Your task to perform on an android device: delete a single message in the gmail app Image 0: 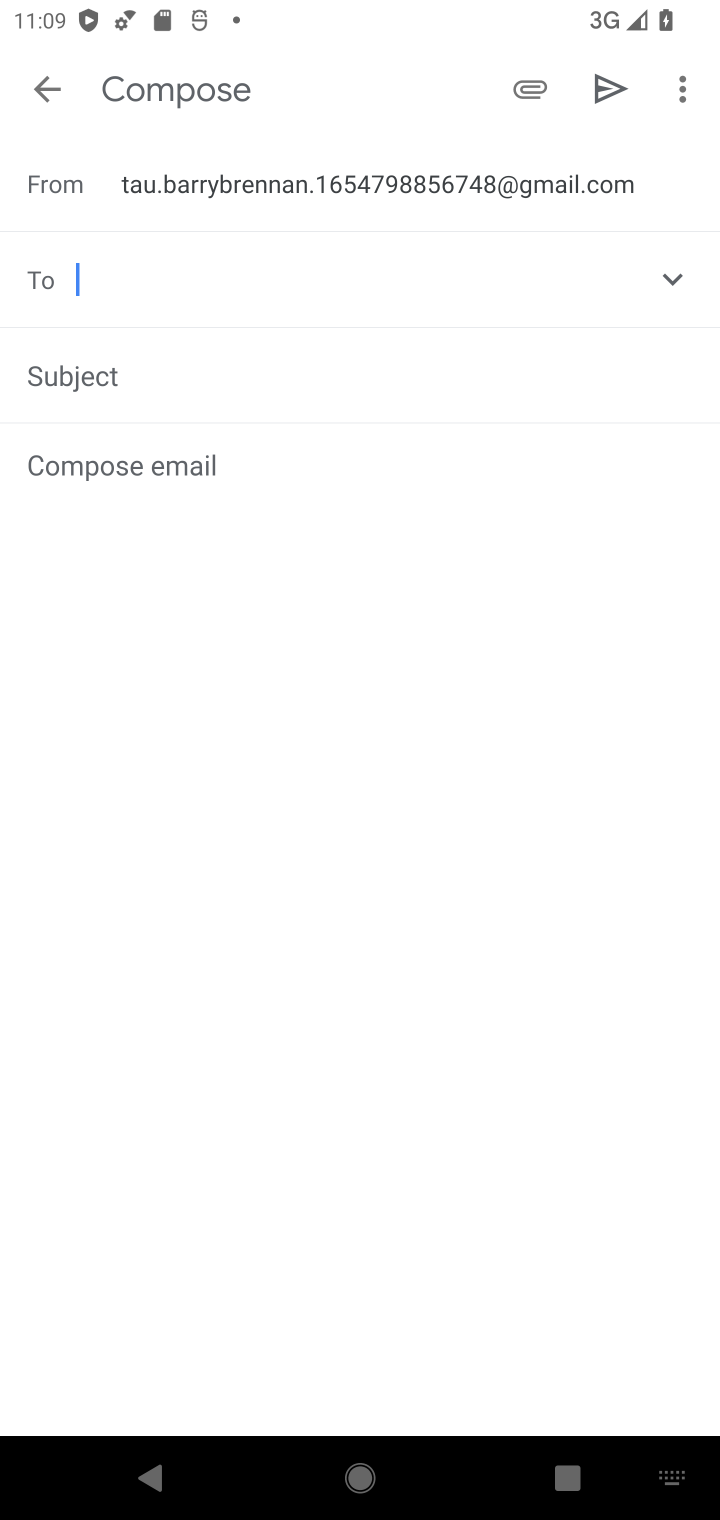
Step 0: press home button
Your task to perform on an android device: delete a single message in the gmail app Image 1: 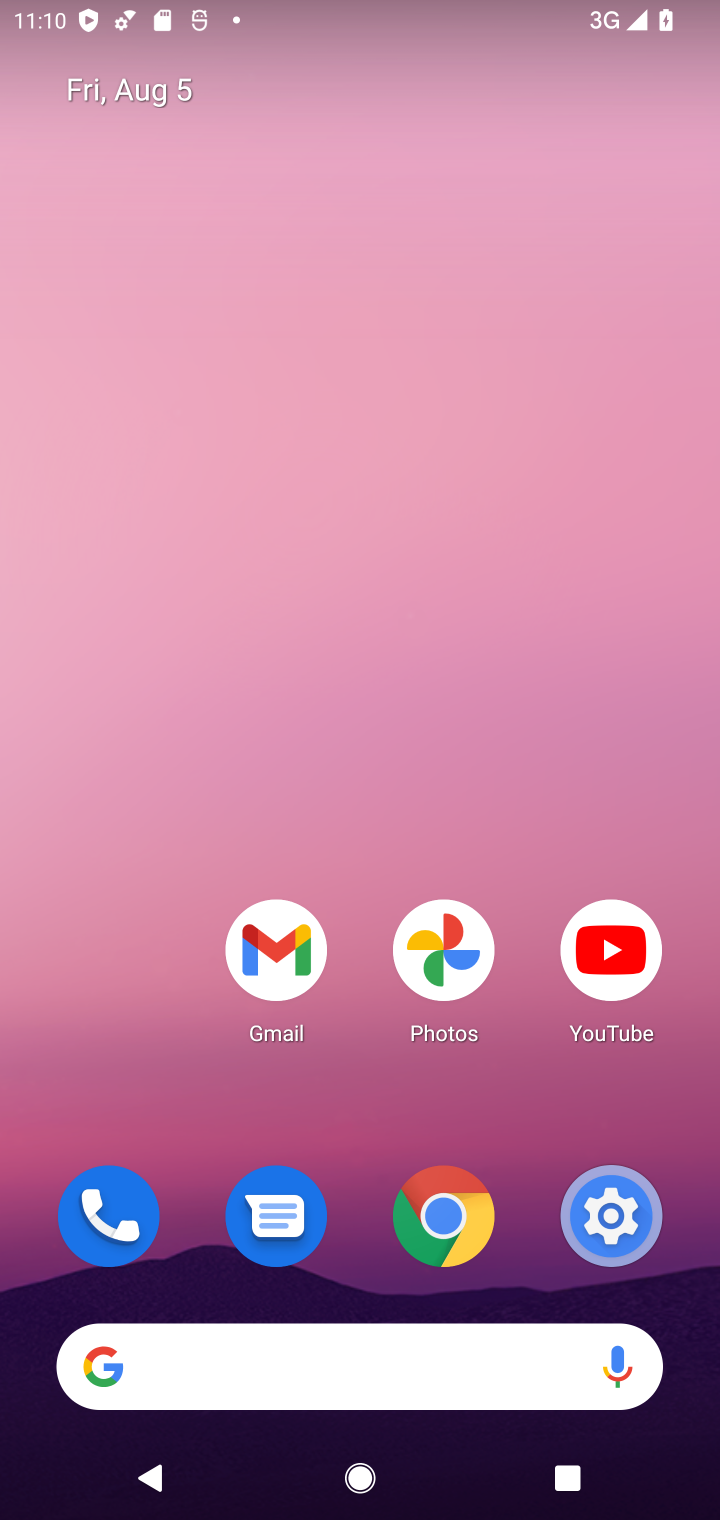
Step 1: drag from (487, 1391) to (474, 43)
Your task to perform on an android device: delete a single message in the gmail app Image 2: 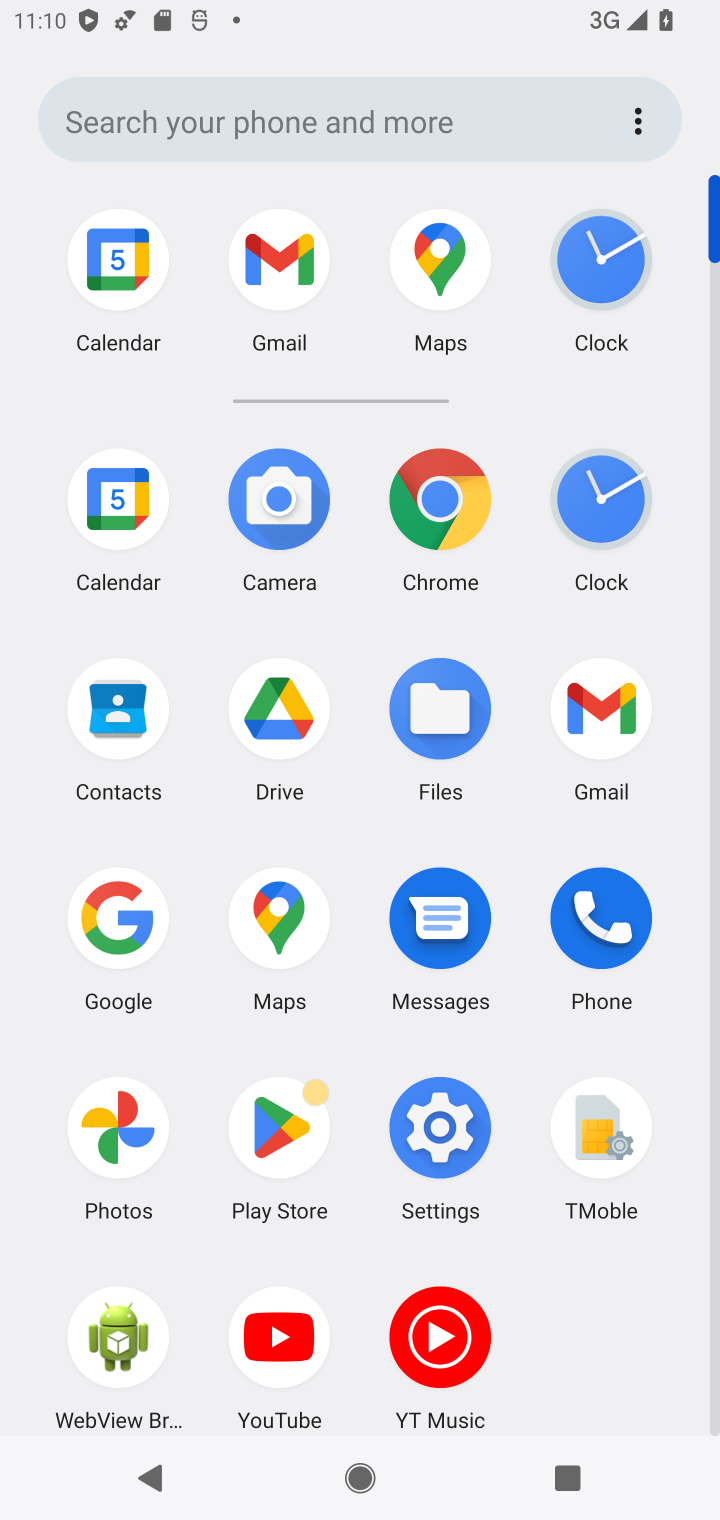
Step 2: click (621, 683)
Your task to perform on an android device: delete a single message in the gmail app Image 3: 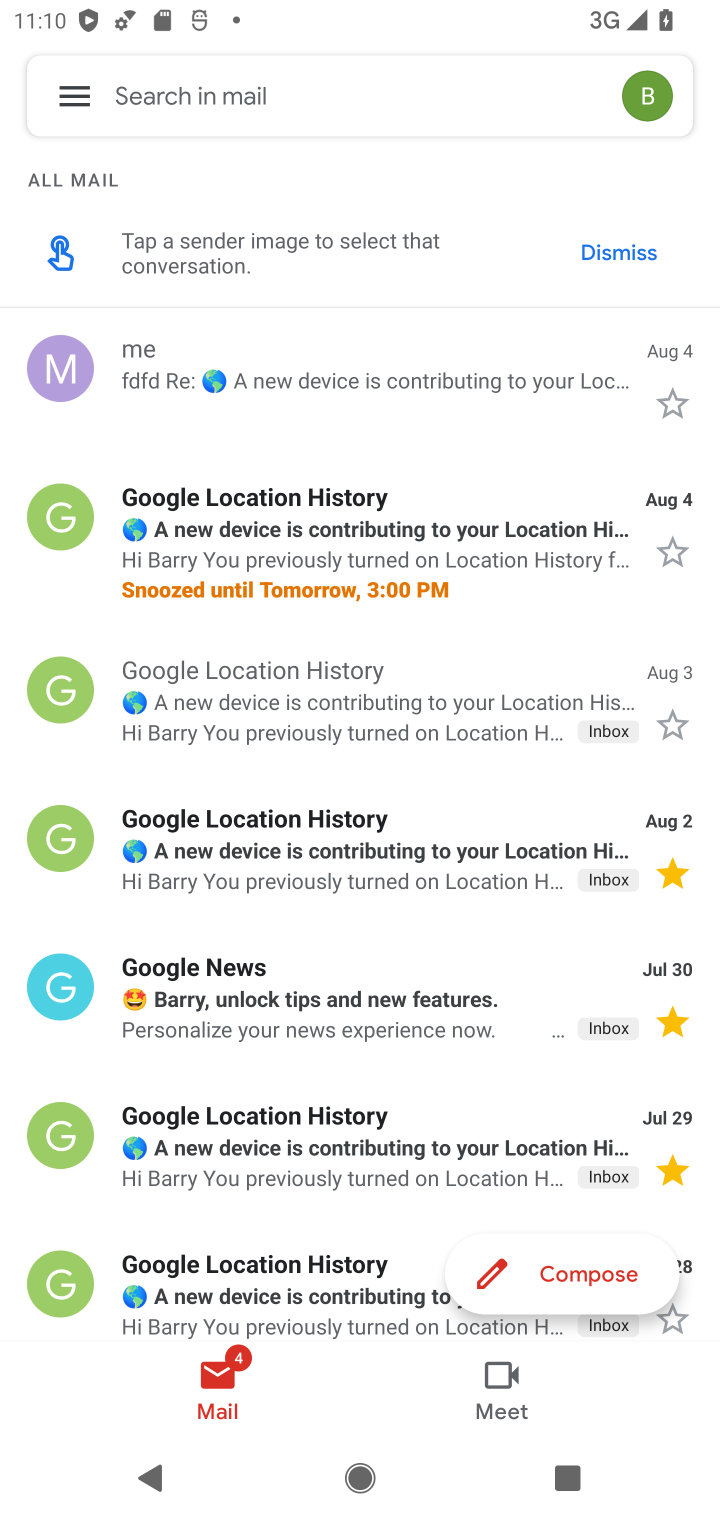
Step 3: click (501, 560)
Your task to perform on an android device: delete a single message in the gmail app Image 4: 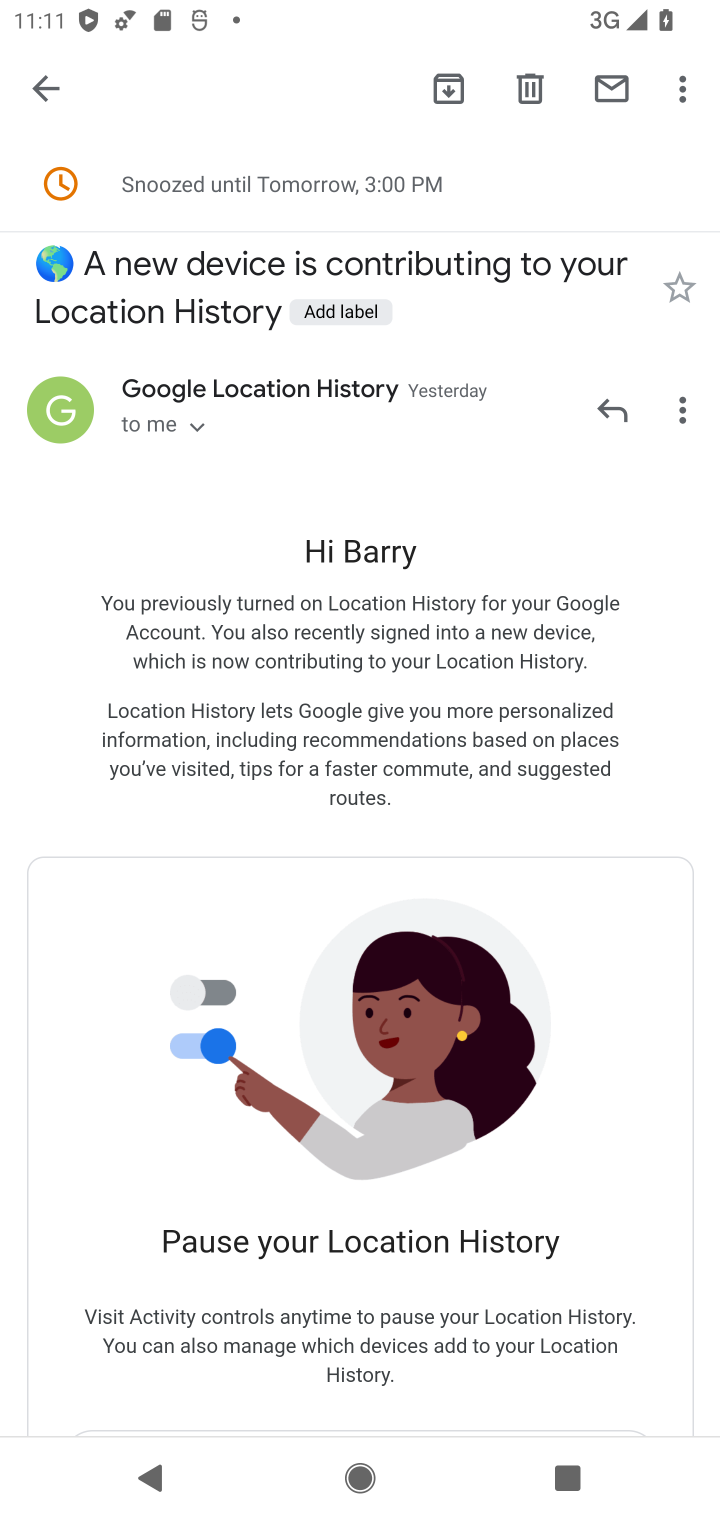
Step 4: click (537, 84)
Your task to perform on an android device: delete a single message in the gmail app Image 5: 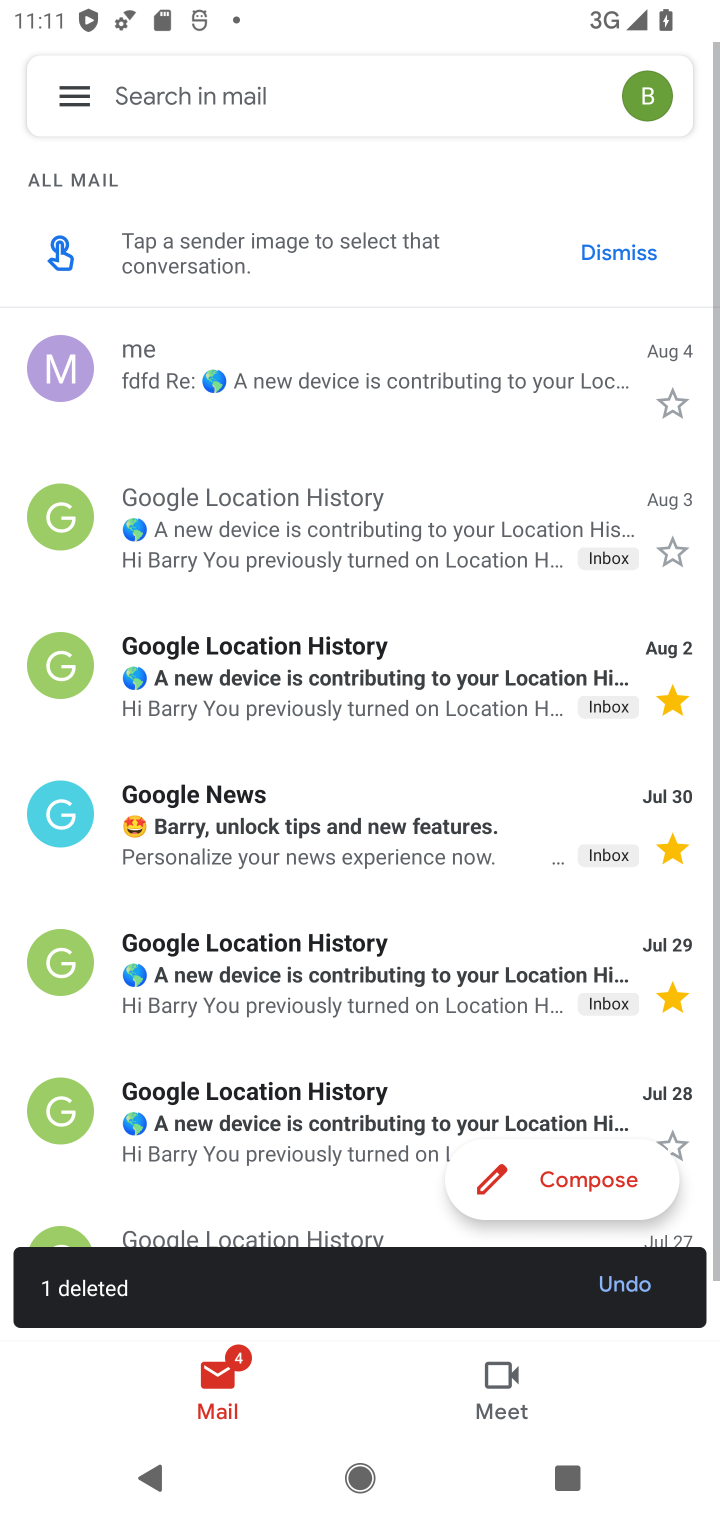
Step 5: task complete